Your task to perform on an android device: refresh tabs in the chrome app Image 0: 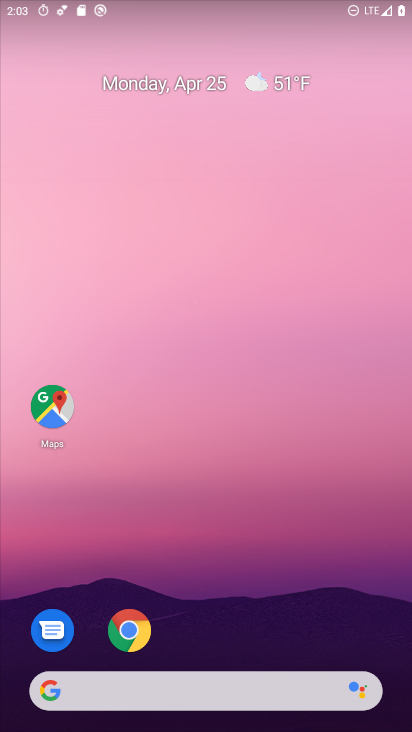
Step 0: click (139, 632)
Your task to perform on an android device: refresh tabs in the chrome app Image 1: 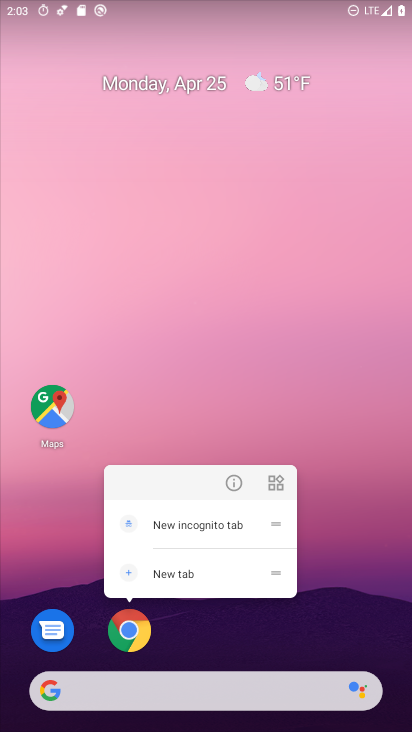
Step 1: click (235, 483)
Your task to perform on an android device: refresh tabs in the chrome app Image 2: 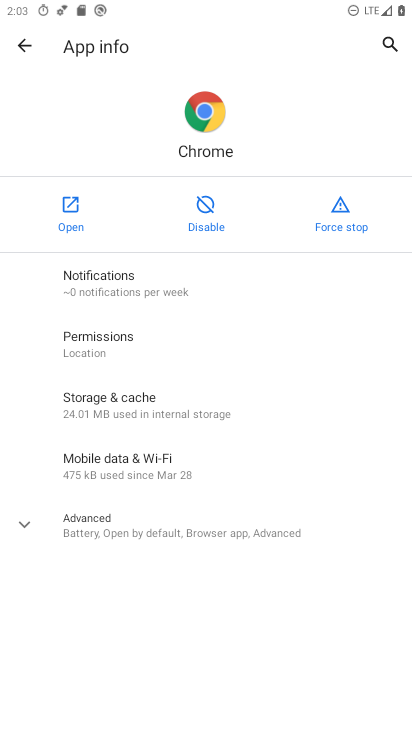
Step 2: click (85, 210)
Your task to perform on an android device: refresh tabs in the chrome app Image 3: 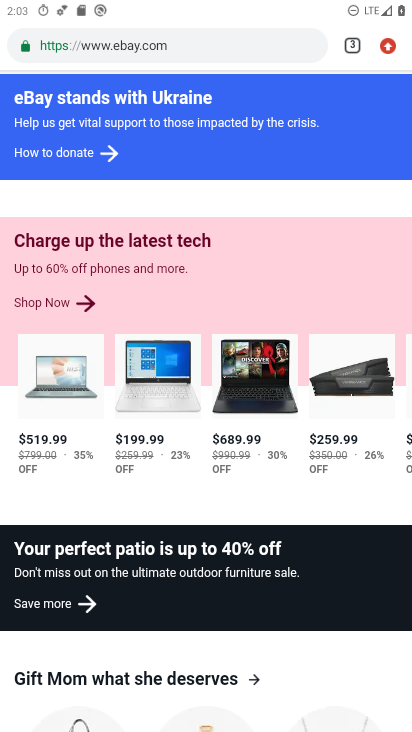
Step 3: click (386, 48)
Your task to perform on an android device: refresh tabs in the chrome app Image 4: 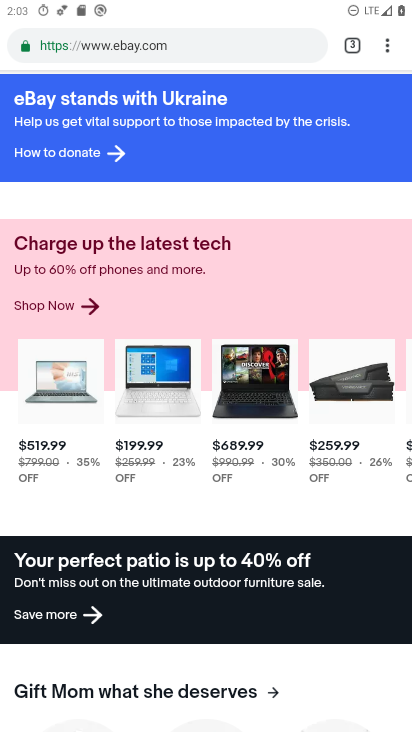
Step 4: task complete